Your task to perform on an android device: Go to sound settings Image 0: 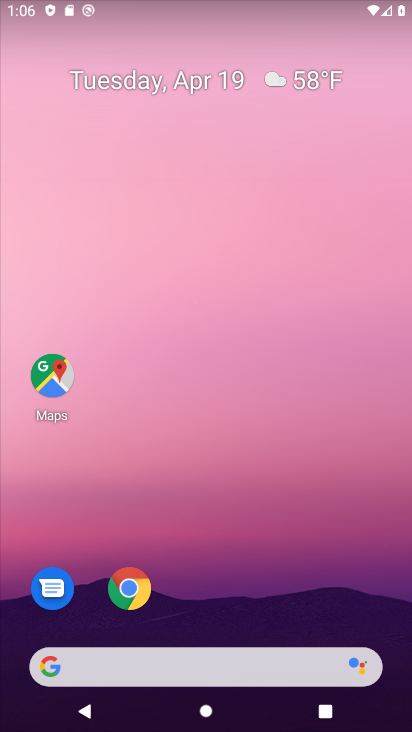
Step 0: drag from (245, 600) to (209, 140)
Your task to perform on an android device: Go to sound settings Image 1: 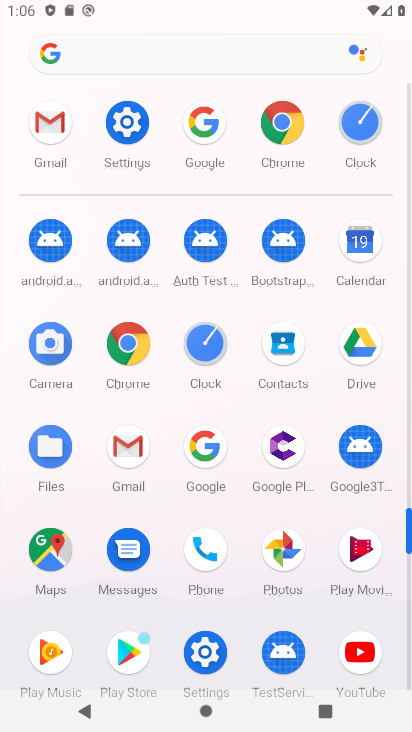
Step 1: click (111, 115)
Your task to perform on an android device: Go to sound settings Image 2: 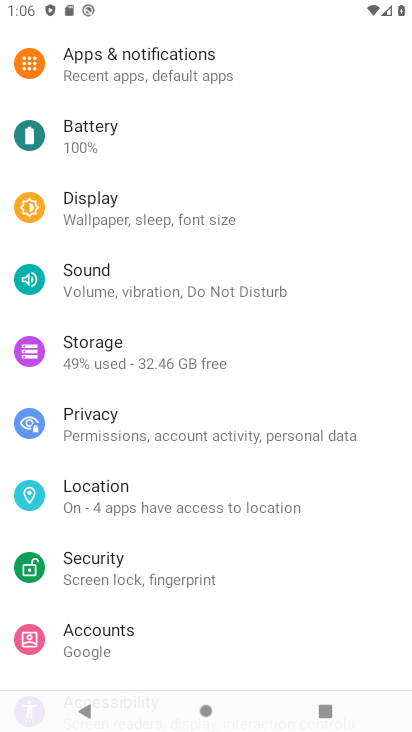
Step 2: click (100, 291)
Your task to perform on an android device: Go to sound settings Image 3: 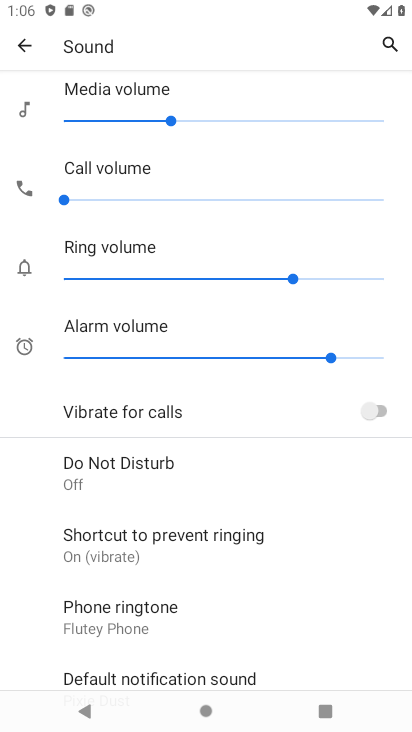
Step 3: drag from (212, 536) to (150, 195)
Your task to perform on an android device: Go to sound settings Image 4: 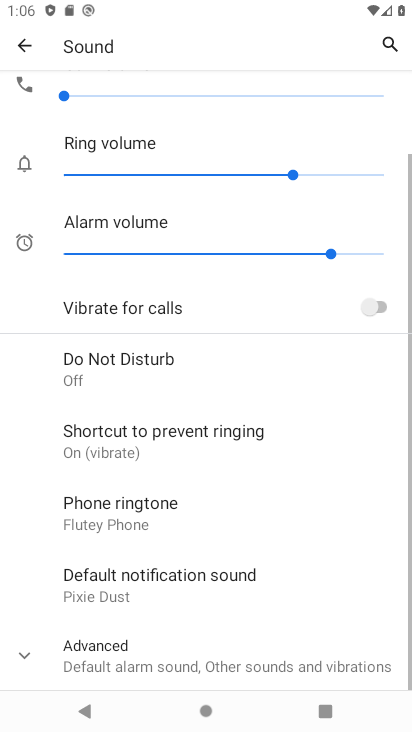
Step 4: drag from (232, 581) to (191, 154)
Your task to perform on an android device: Go to sound settings Image 5: 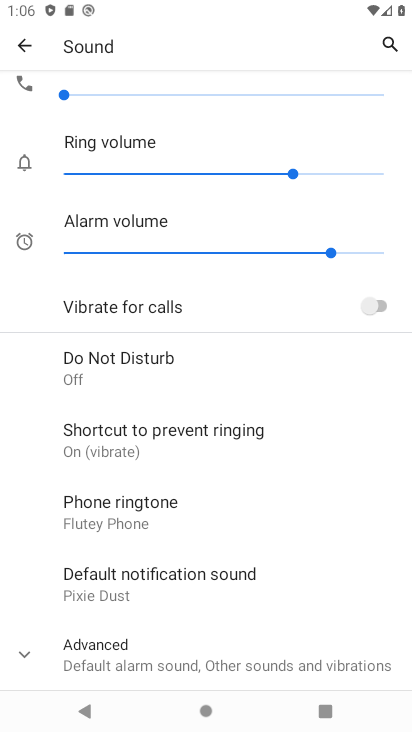
Step 5: drag from (202, 526) to (160, 340)
Your task to perform on an android device: Go to sound settings Image 6: 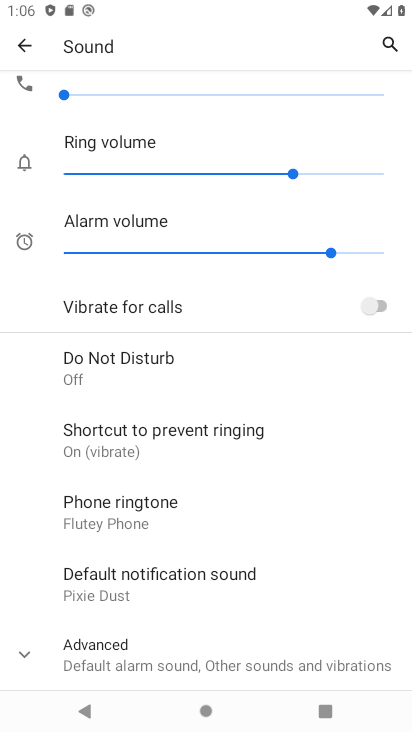
Step 6: drag from (196, 485) to (154, 267)
Your task to perform on an android device: Go to sound settings Image 7: 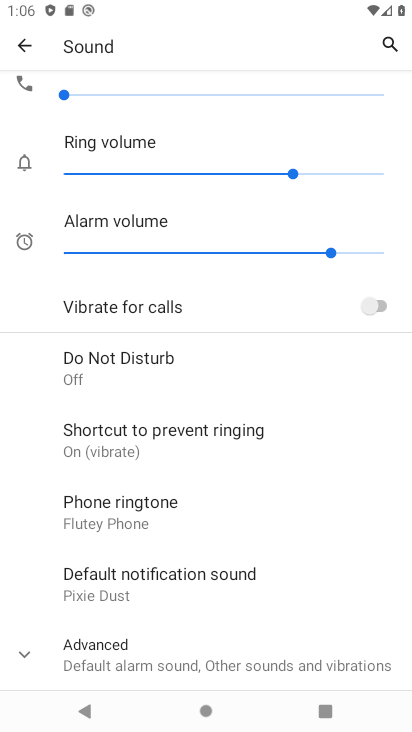
Step 7: click (195, 176)
Your task to perform on an android device: Go to sound settings Image 8: 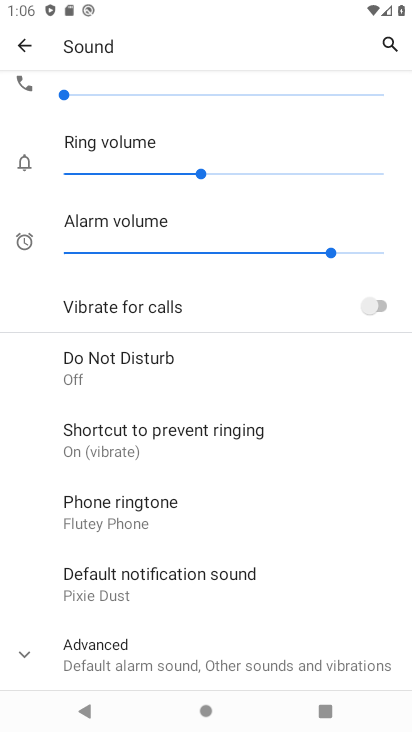
Step 8: task complete